Your task to perform on an android device: Go to Google maps Image 0: 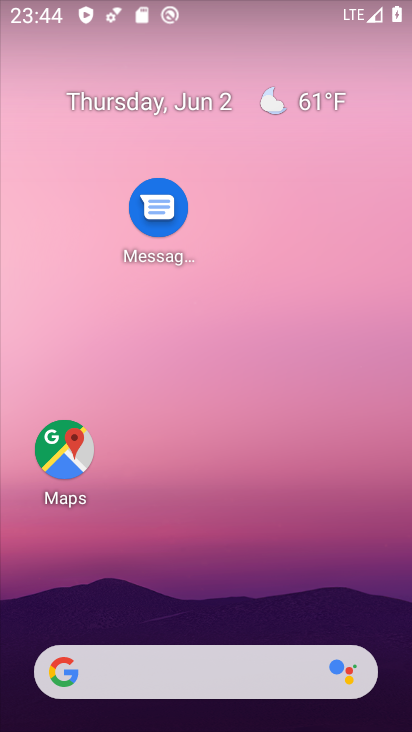
Step 0: drag from (199, 637) to (208, 15)
Your task to perform on an android device: Go to Google maps Image 1: 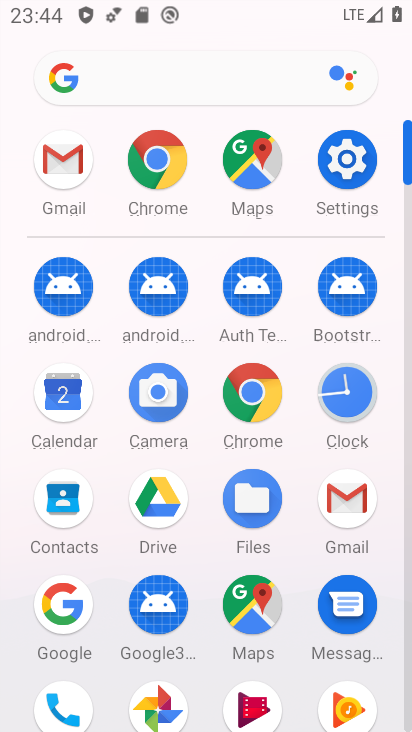
Step 1: click (253, 590)
Your task to perform on an android device: Go to Google maps Image 2: 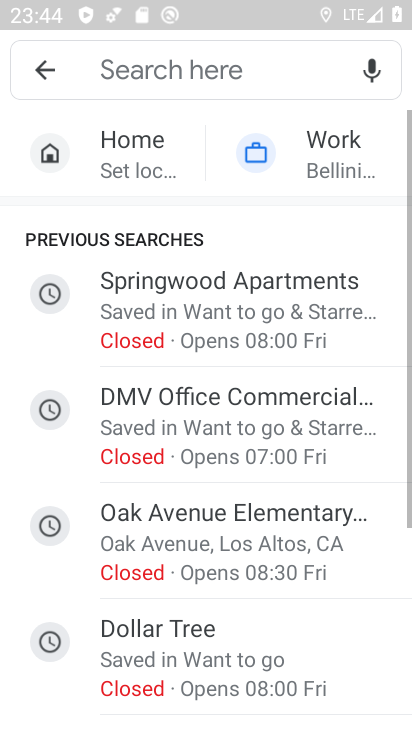
Step 2: click (36, 69)
Your task to perform on an android device: Go to Google maps Image 3: 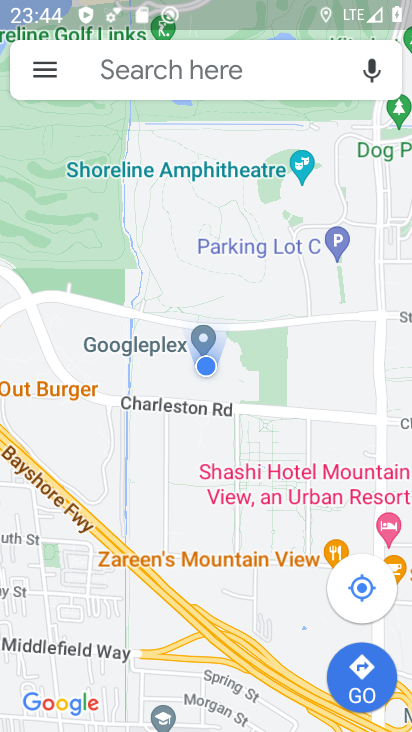
Step 3: click (36, 69)
Your task to perform on an android device: Go to Google maps Image 4: 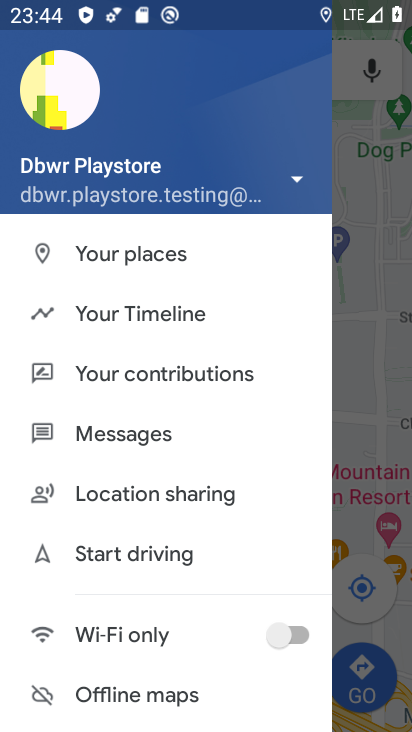
Step 4: click (383, 187)
Your task to perform on an android device: Go to Google maps Image 5: 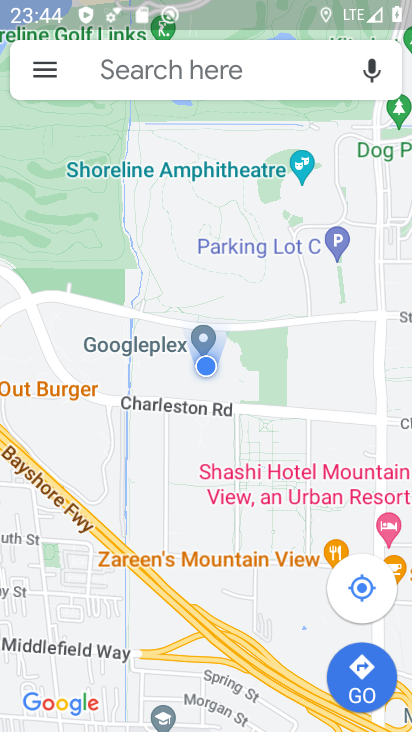
Step 5: task complete